Your task to perform on an android device: What's the weather going to be tomorrow? Image 0: 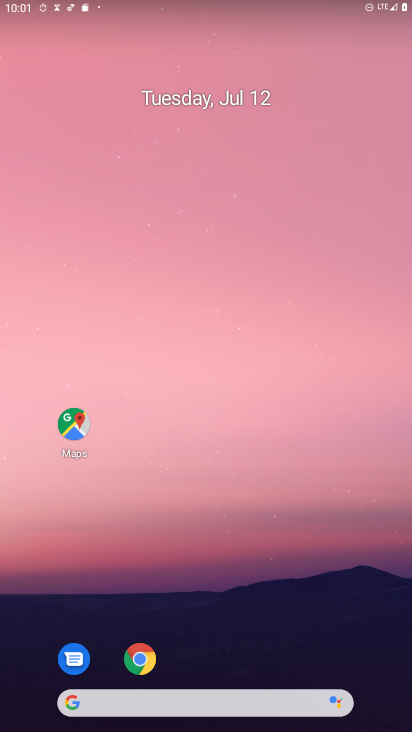
Step 0: drag from (204, 694) to (171, 224)
Your task to perform on an android device: What's the weather going to be tomorrow? Image 1: 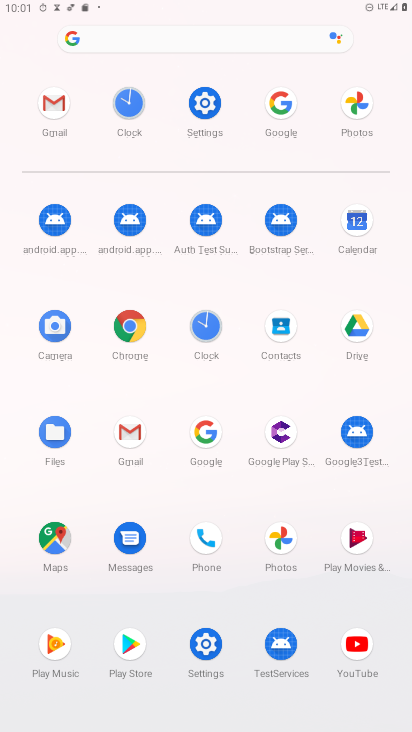
Step 1: click (279, 102)
Your task to perform on an android device: What's the weather going to be tomorrow? Image 2: 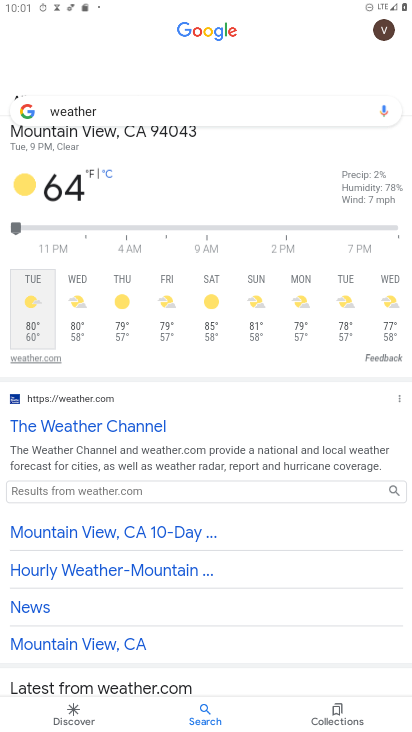
Step 2: click (217, 102)
Your task to perform on an android device: What's the weather going to be tomorrow? Image 3: 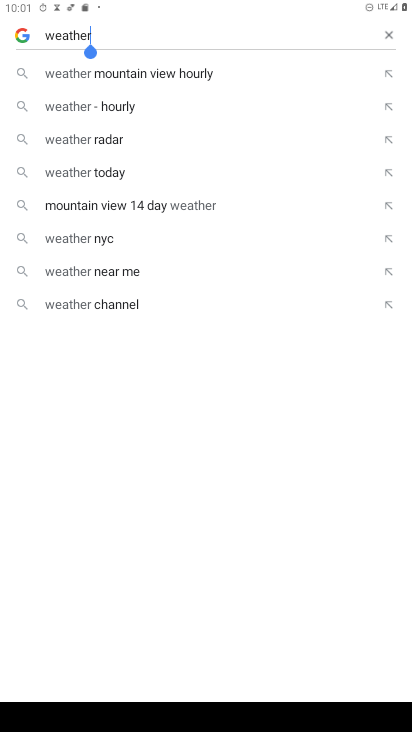
Step 3: click (387, 35)
Your task to perform on an android device: What's the weather going to be tomorrow? Image 4: 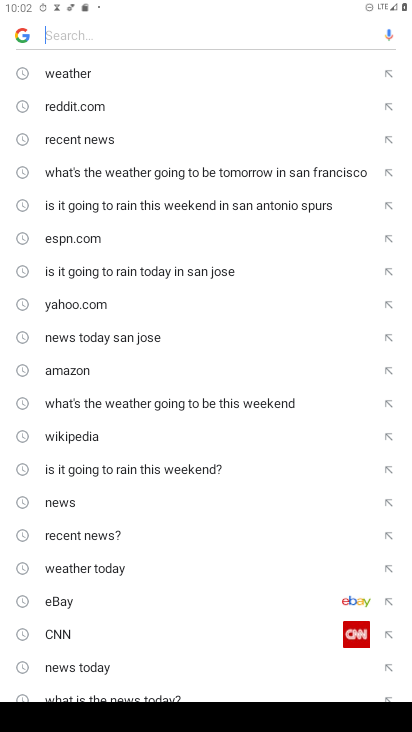
Step 4: type "What's the weather going  to be tomorrow?"
Your task to perform on an android device: What's the weather going to be tomorrow? Image 5: 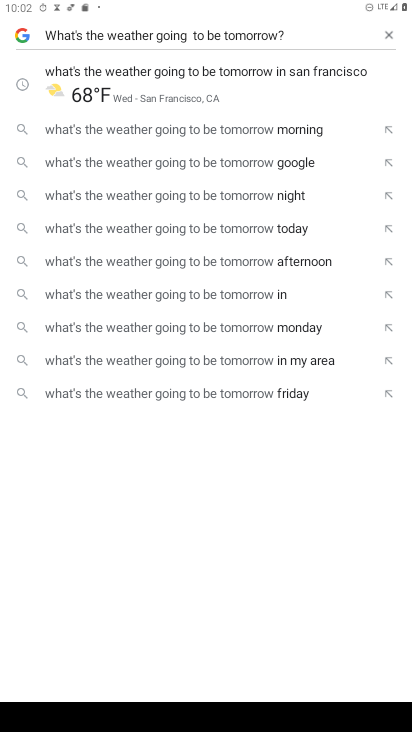
Step 5: click (157, 80)
Your task to perform on an android device: What's the weather going to be tomorrow? Image 6: 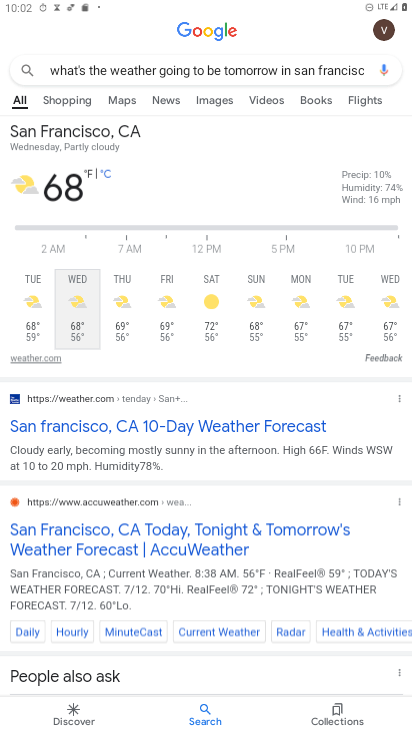
Step 6: task complete